Your task to perform on an android device: add a contact Image 0: 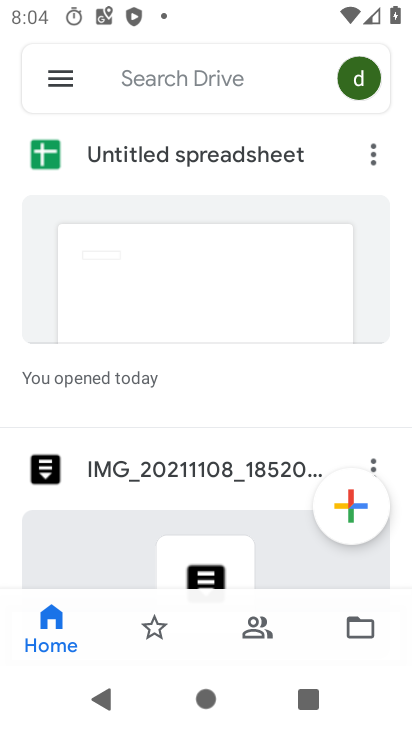
Step 0: press home button
Your task to perform on an android device: add a contact Image 1: 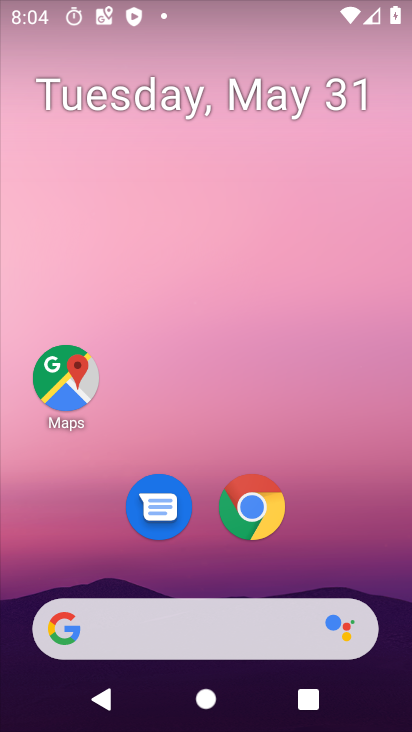
Step 1: drag from (2, 666) to (339, 100)
Your task to perform on an android device: add a contact Image 2: 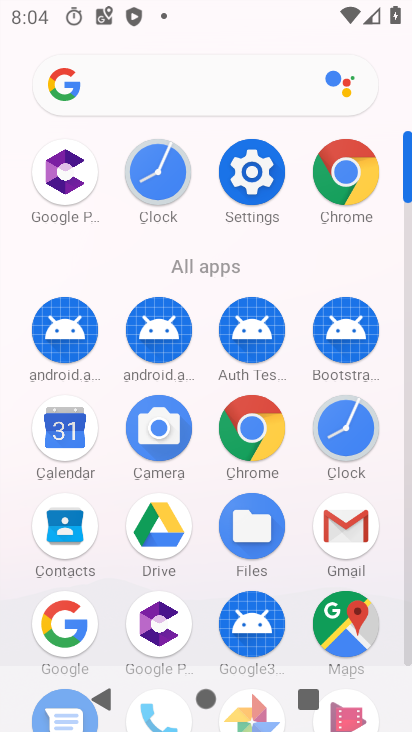
Step 2: drag from (25, 625) to (152, 300)
Your task to perform on an android device: add a contact Image 3: 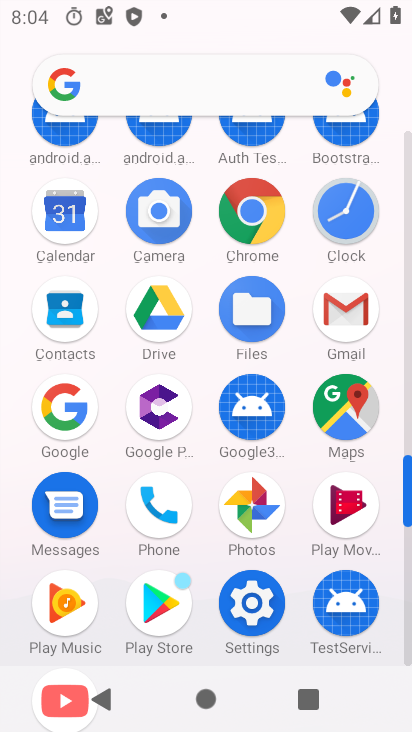
Step 3: click (140, 515)
Your task to perform on an android device: add a contact Image 4: 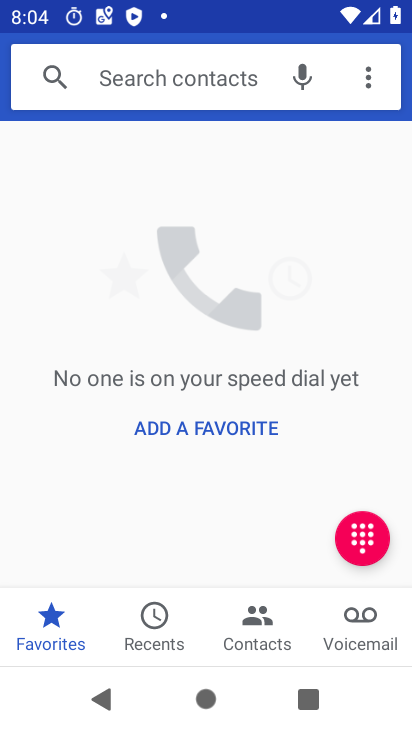
Step 4: click (265, 613)
Your task to perform on an android device: add a contact Image 5: 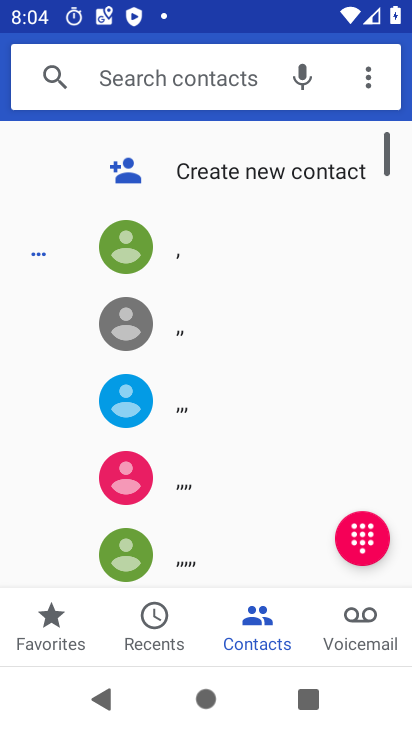
Step 5: click (261, 172)
Your task to perform on an android device: add a contact Image 6: 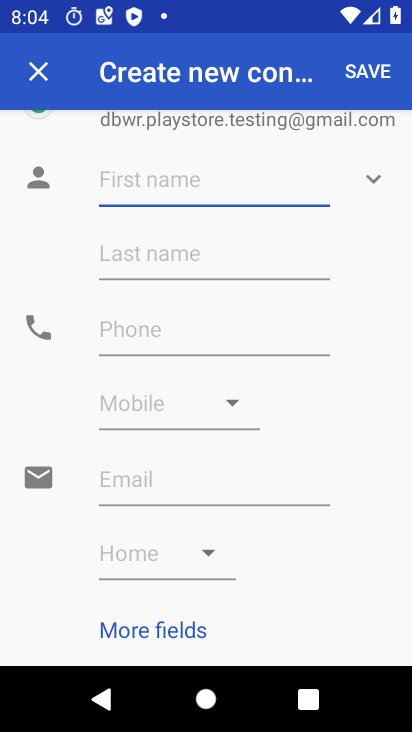
Step 6: click (201, 180)
Your task to perform on an android device: add a contact Image 7: 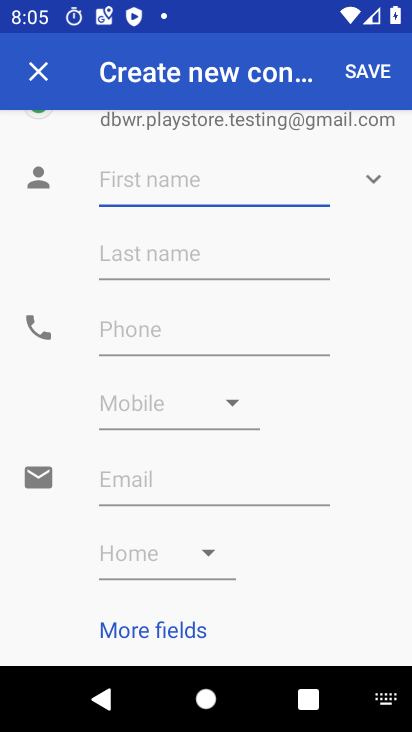
Step 7: type "bgfgb"
Your task to perform on an android device: add a contact Image 8: 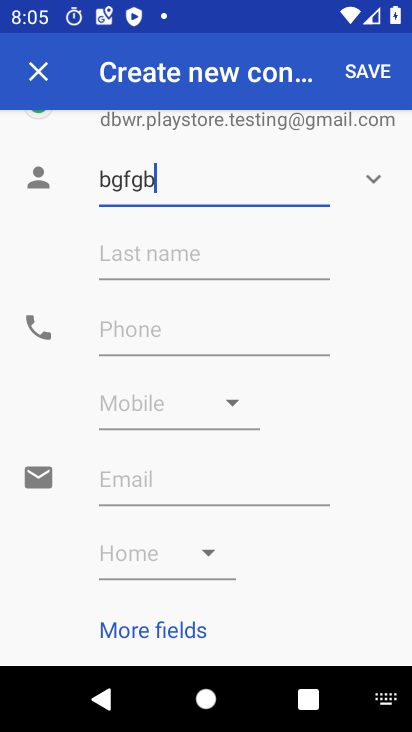
Step 8: type ""
Your task to perform on an android device: add a contact Image 9: 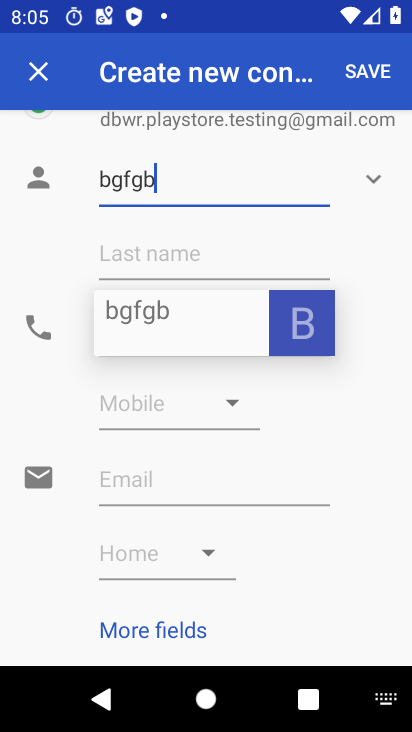
Step 9: click (359, 68)
Your task to perform on an android device: add a contact Image 10: 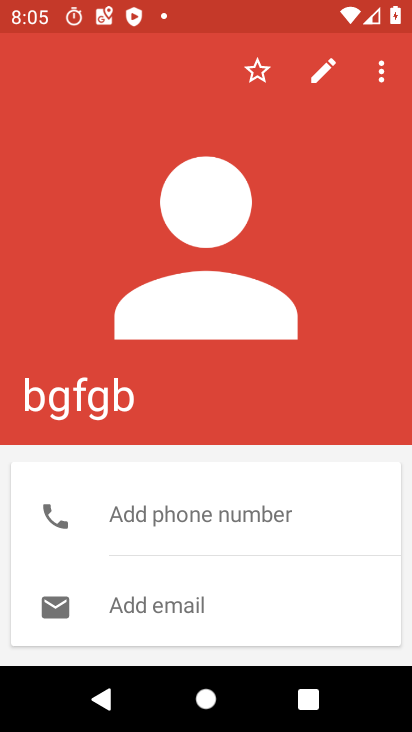
Step 10: task complete